Your task to perform on an android device: Open Google Chrome and click the shortcut for Amazon.com Image 0: 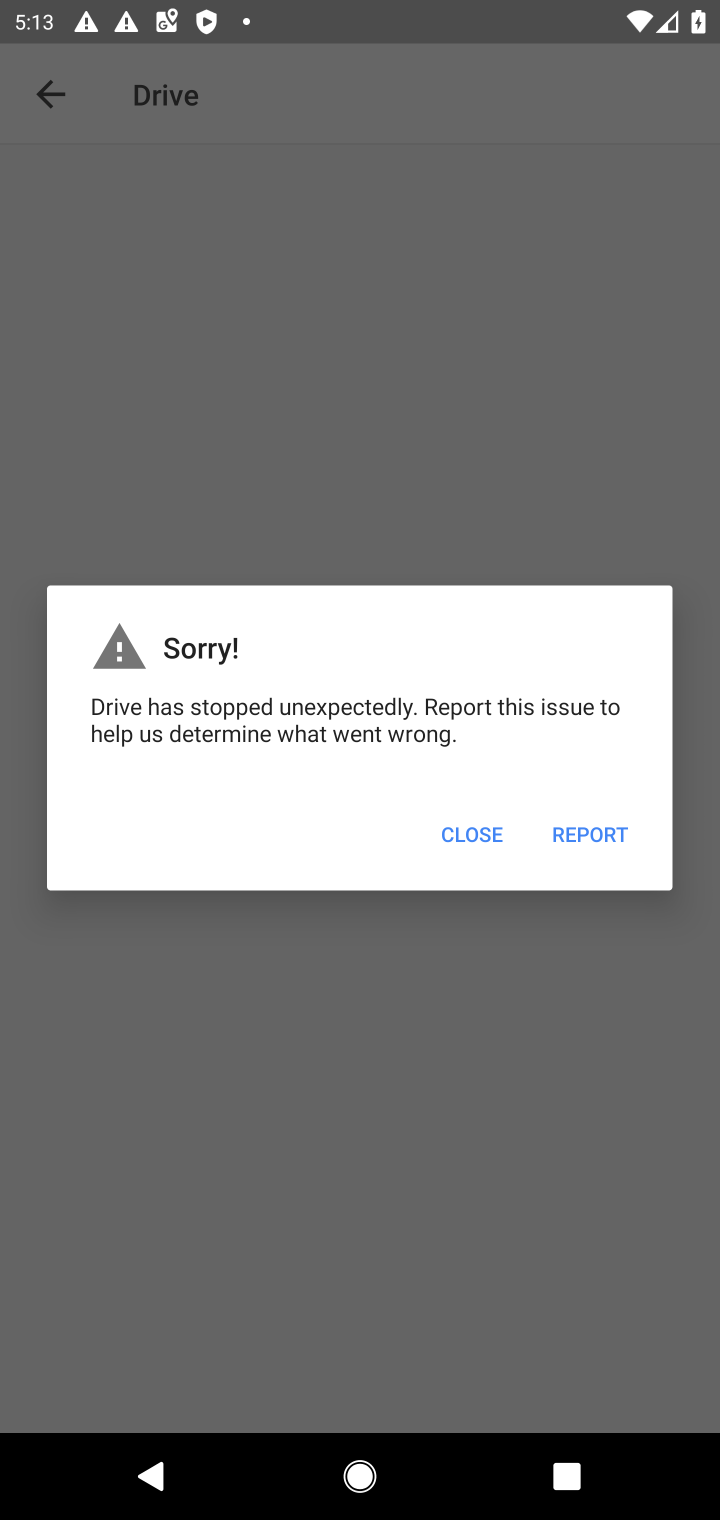
Step 0: press home button
Your task to perform on an android device: Open Google Chrome and click the shortcut for Amazon.com Image 1: 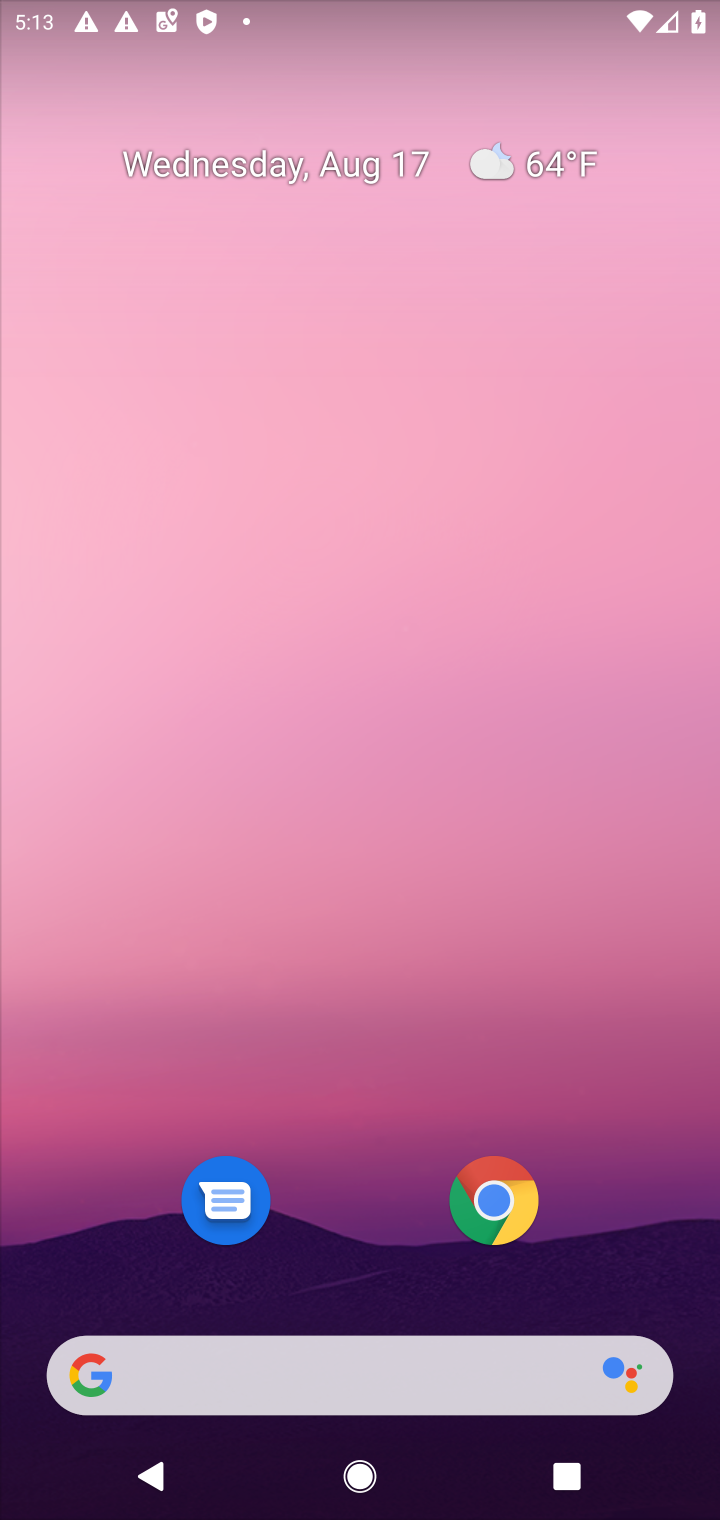
Step 1: click (506, 1197)
Your task to perform on an android device: Open Google Chrome and click the shortcut for Amazon.com Image 2: 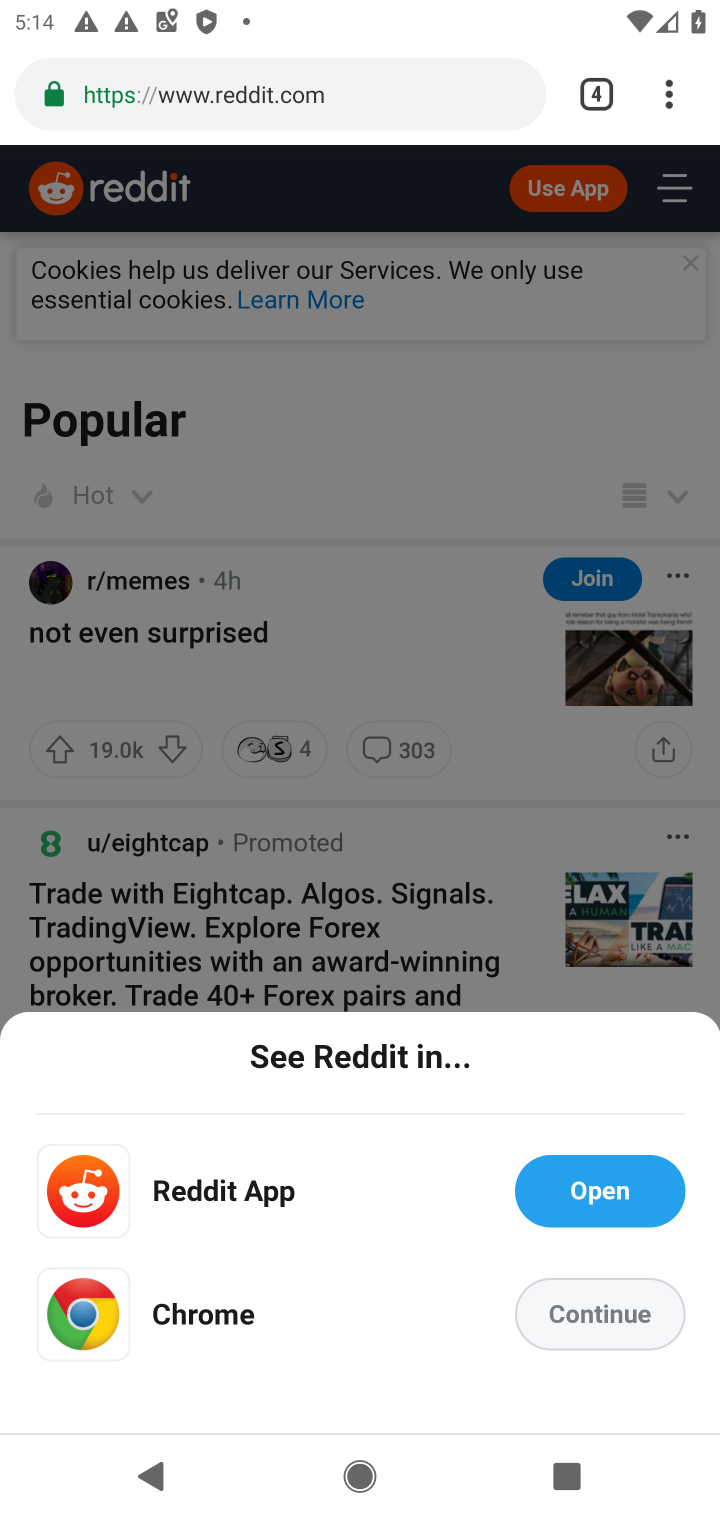
Step 2: click (673, 110)
Your task to perform on an android device: Open Google Chrome and click the shortcut for Amazon.com Image 3: 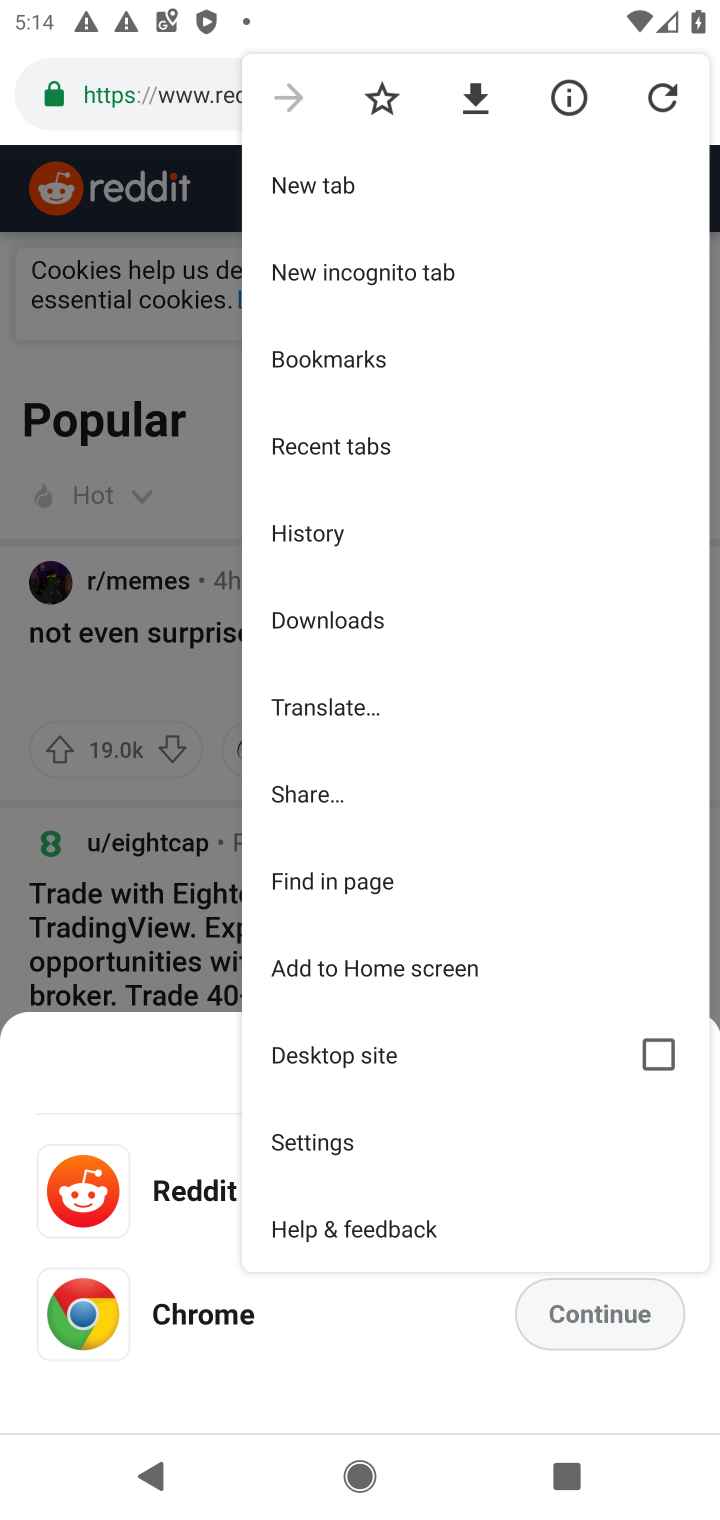
Step 3: click (318, 174)
Your task to perform on an android device: Open Google Chrome and click the shortcut for Amazon.com Image 4: 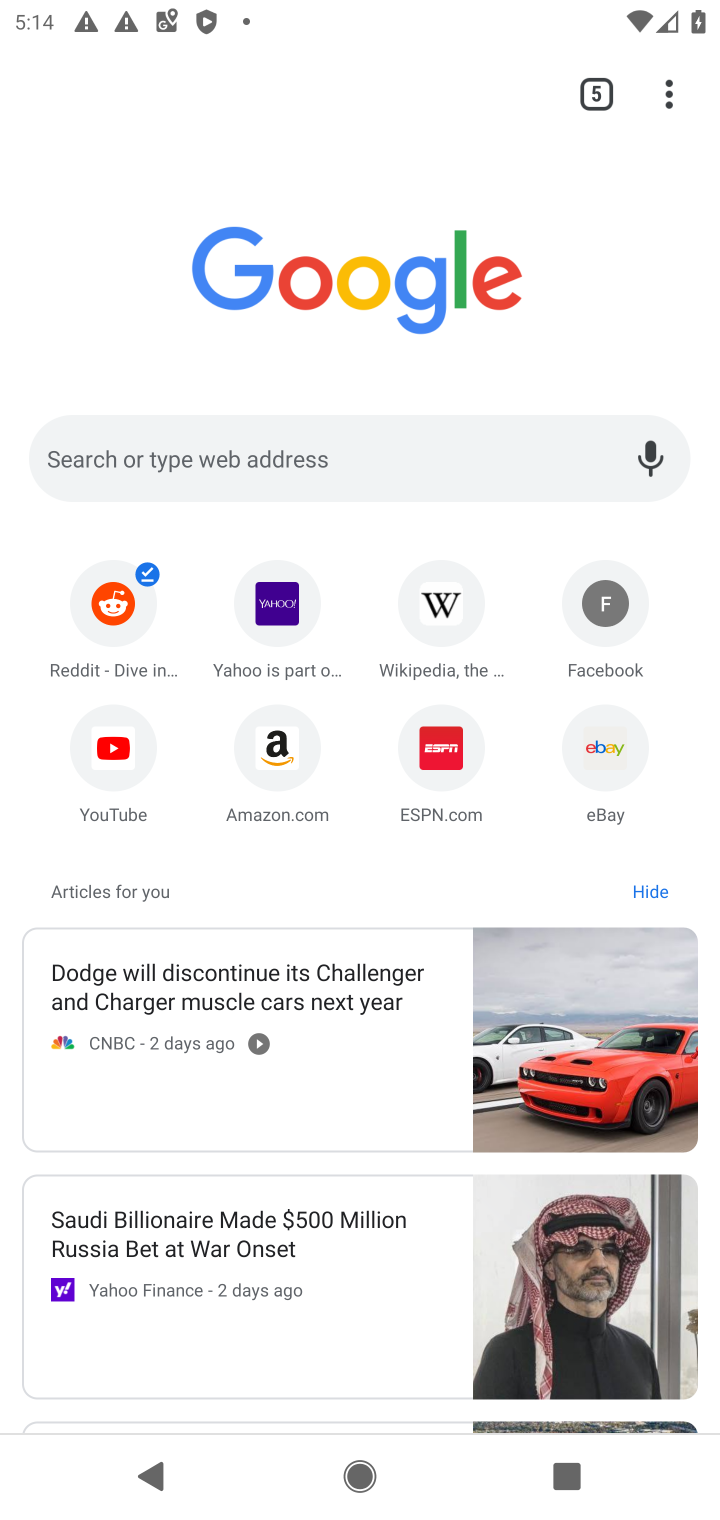
Step 4: click (274, 753)
Your task to perform on an android device: Open Google Chrome and click the shortcut for Amazon.com Image 5: 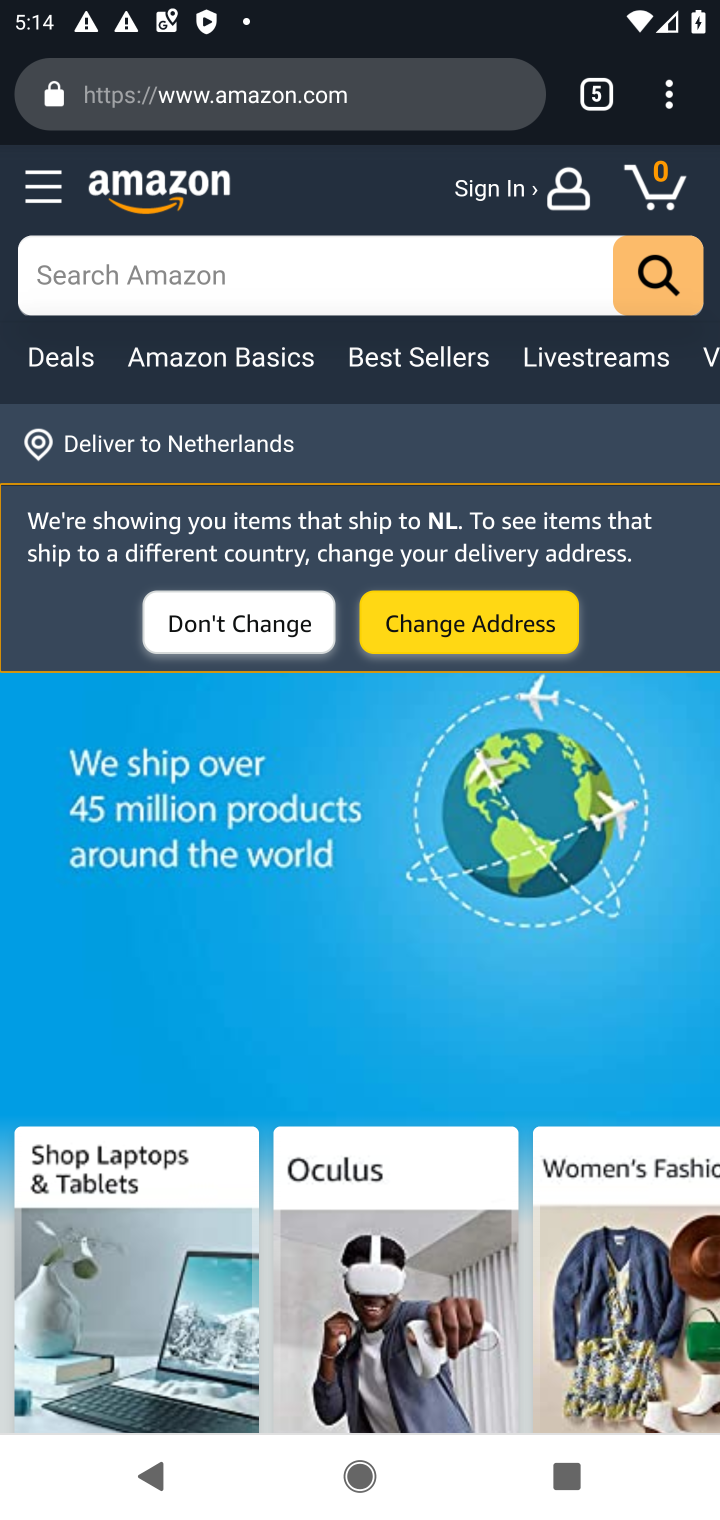
Step 5: task complete